Your task to perform on an android device: Open Google Chrome and open the bookmarks view Image 0: 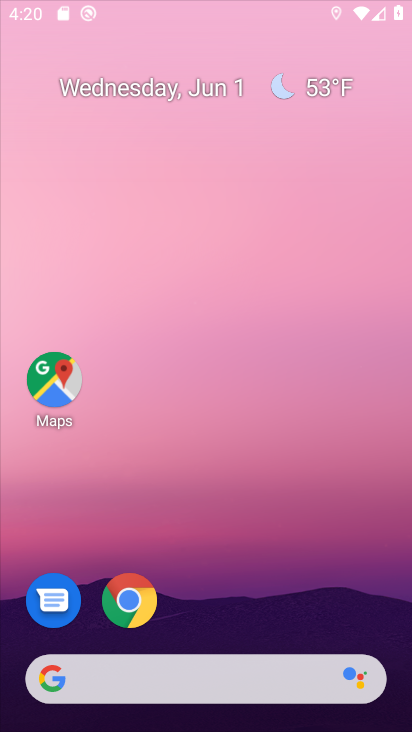
Step 0: drag from (193, 554) to (156, 270)
Your task to perform on an android device: Open Google Chrome and open the bookmarks view Image 1: 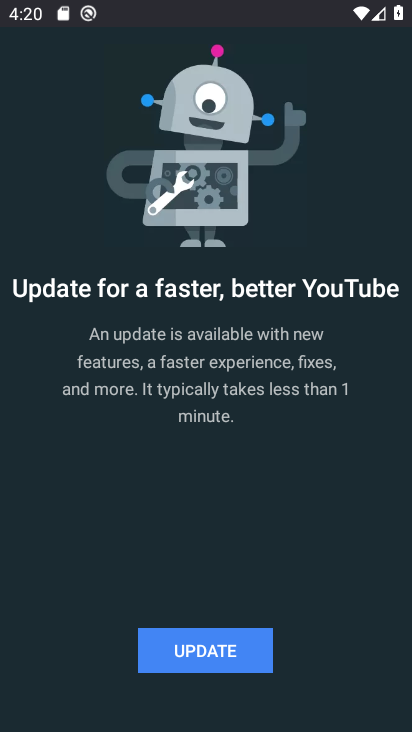
Step 1: press home button
Your task to perform on an android device: Open Google Chrome and open the bookmarks view Image 2: 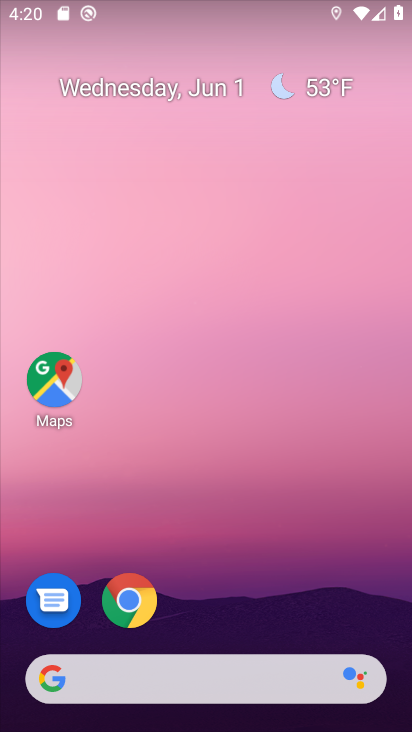
Step 2: drag from (247, 512) to (147, 182)
Your task to perform on an android device: Open Google Chrome and open the bookmarks view Image 3: 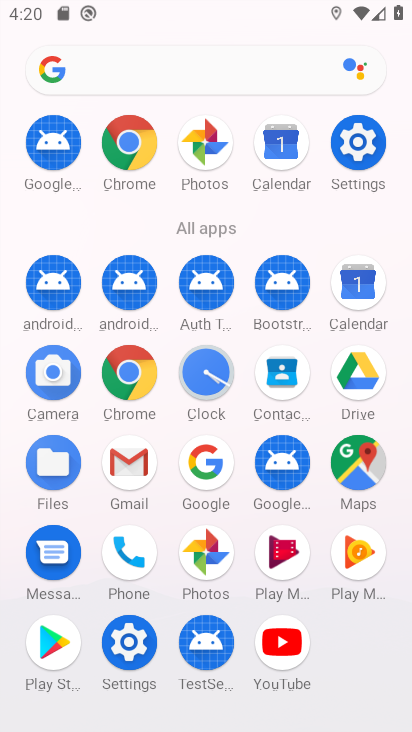
Step 3: click (127, 162)
Your task to perform on an android device: Open Google Chrome and open the bookmarks view Image 4: 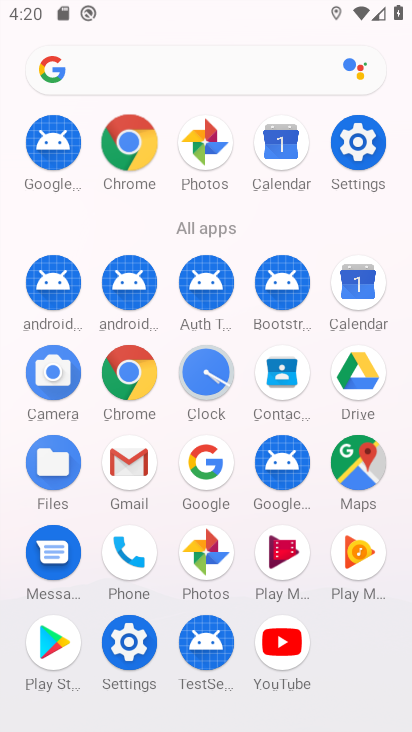
Step 4: click (127, 157)
Your task to perform on an android device: Open Google Chrome and open the bookmarks view Image 5: 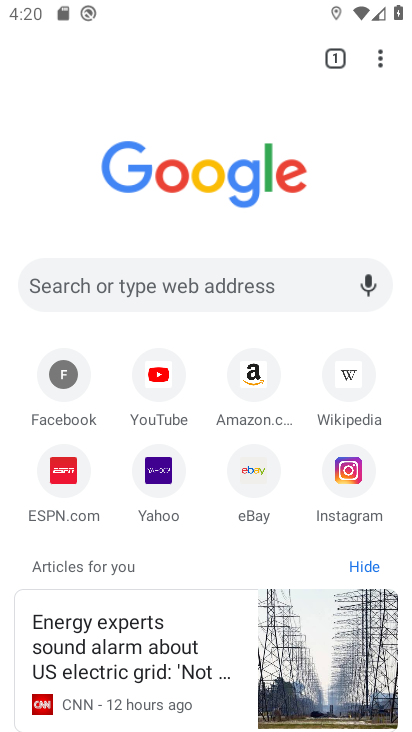
Step 5: click (386, 67)
Your task to perform on an android device: Open Google Chrome and open the bookmarks view Image 6: 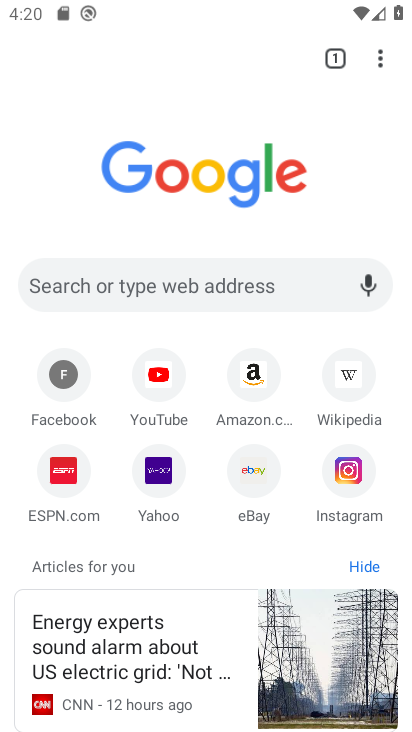
Step 6: click (380, 52)
Your task to perform on an android device: Open Google Chrome and open the bookmarks view Image 7: 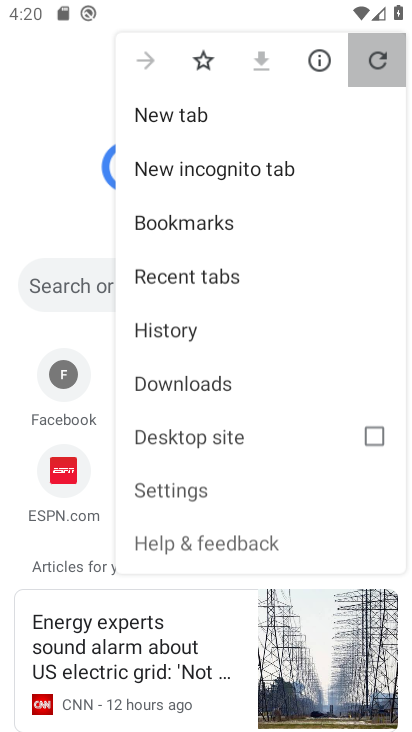
Step 7: click (380, 52)
Your task to perform on an android device: Open Google Chrome and open the bookmarks view Image 8: 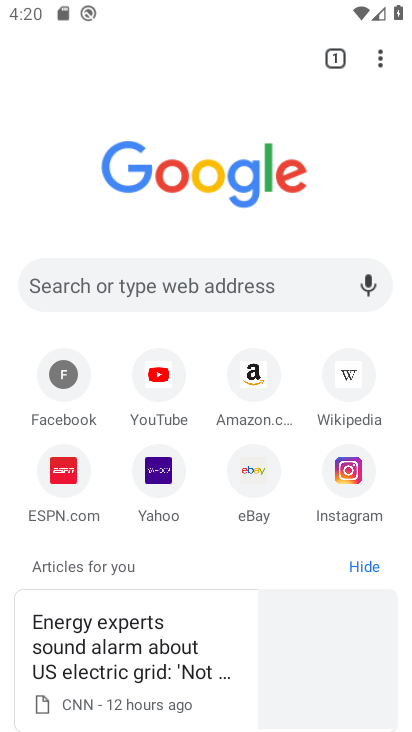
Step 8: click (380, 51)
Your task to perform on an android device: Open Google Chrome and open the bookmarks view Image 9: 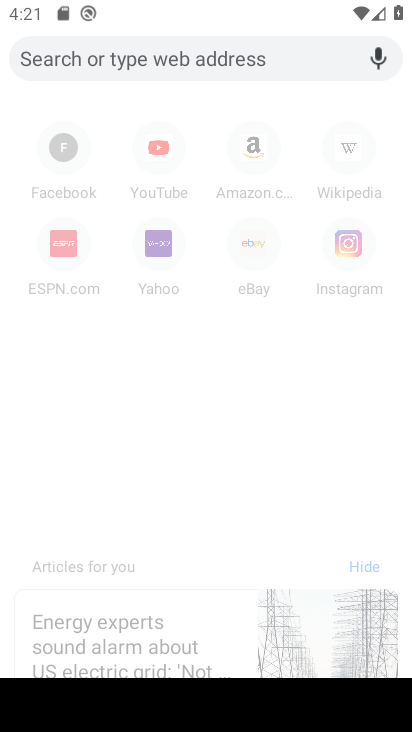
Step 9: press back button
Your task to perform on an android device: Open Google Chrome and open the bookmarks view Image 10: 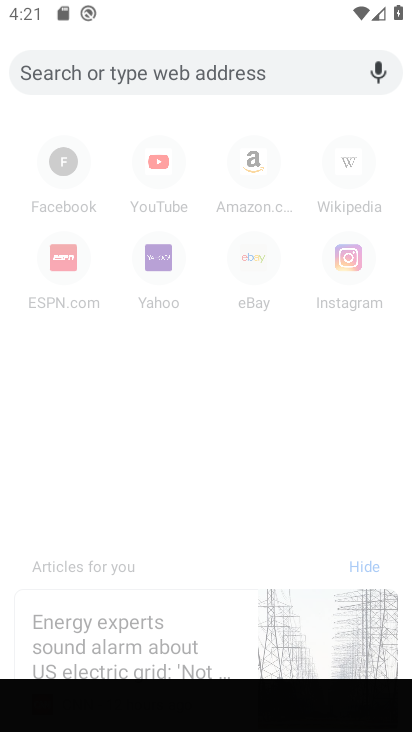
Step 10: press back button
Your task to perform on an android device: Open Google Chrome and open the bookmarks view Image 11: 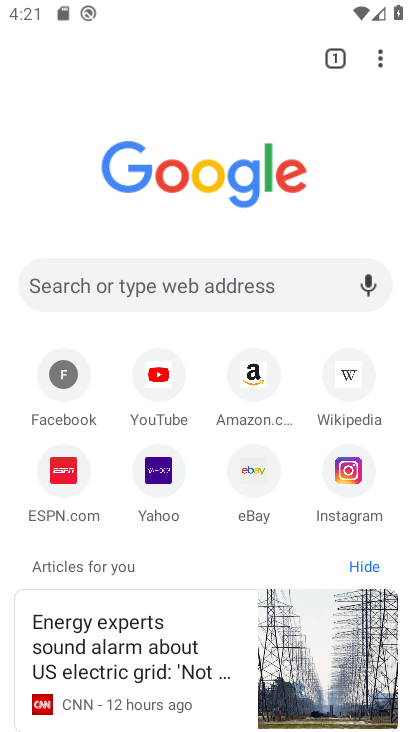
Step 11: press back button
Your task to perform on an android device: Open Google Chrome and open the bookmarks view Image 12: 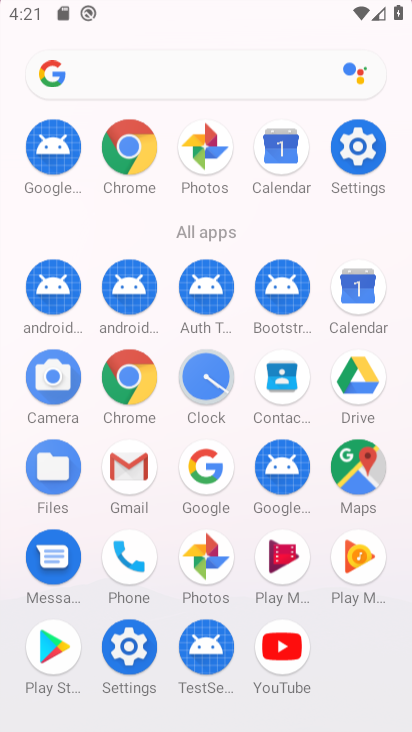
Step 12: press back button
Your task to perform on an android device: Open Google Chrome and open the bookmarks view Image 13: 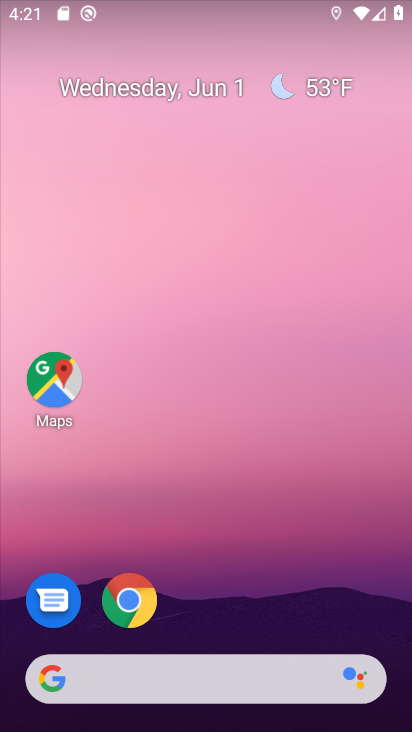
Step 13: drag from (240, 608) to (171, 72)
Your task to perform on an android device: Open Google Chrome and open the bookmarks view Image 14: 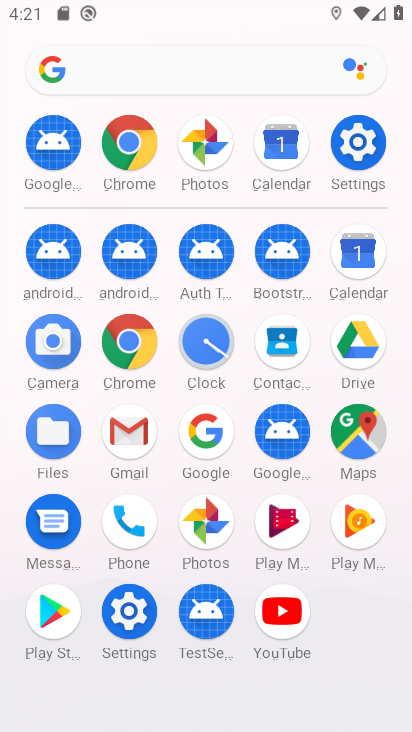
Step 14: drag from (123, 155) to (232, 544)
Your task to perform on an android device: Open Google Chrome and open the bookmarks view Image 15: 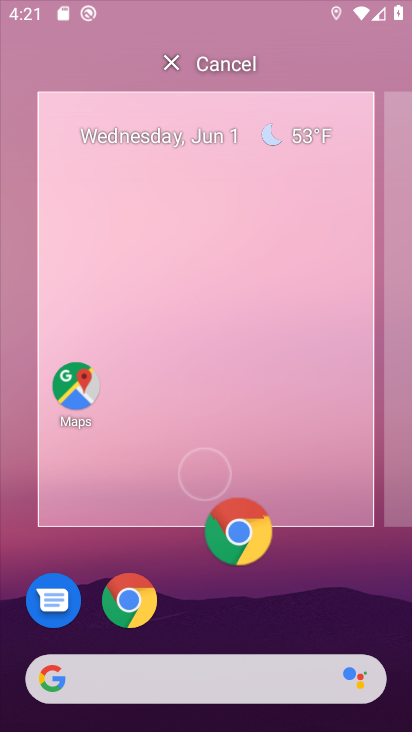
Step 15: drag from (253, 577) to (210, 19)
Your task to perform on an android device: Open Google Chrome and open the bookmarks view Image 16: 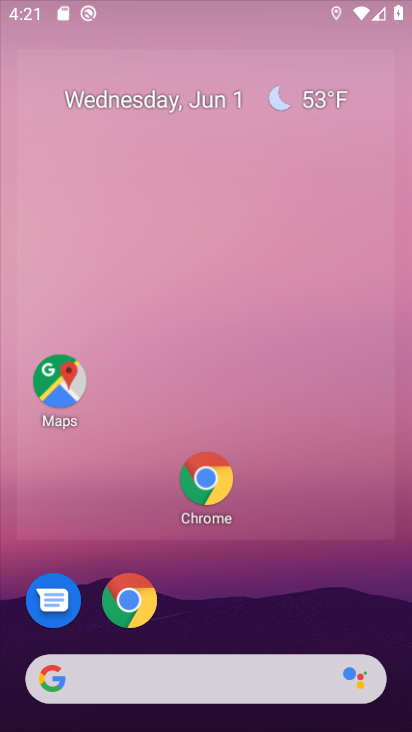
Step 16: drag from (227, 533) to (224, 26)
Your task to perform on an android device: Open Google Chrome and open the bookmarks view Image 17: 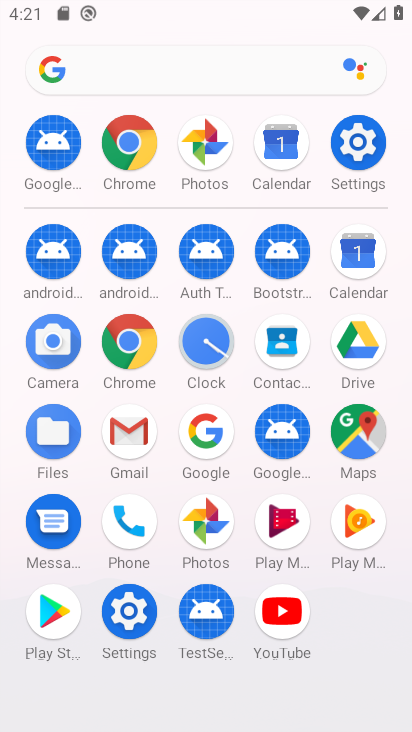
Step 17: click (129, 147)
Your task to perform on an android device: Open Google Chrome and open the bookmarks view Image 18: 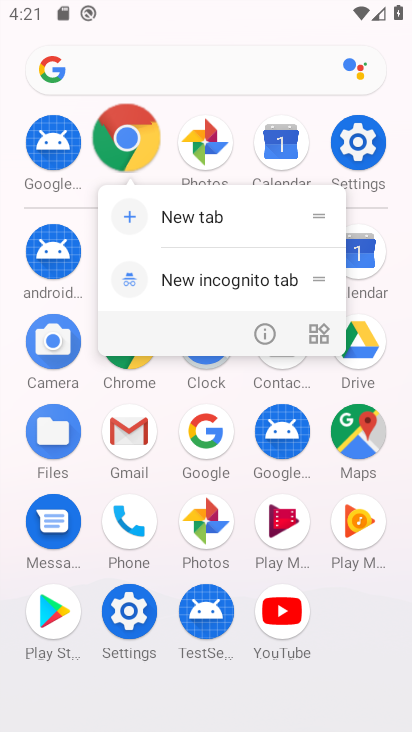
Step 18: click (127, 142)
Your task to perform on an android device: Open Google Chrome and open the bookmarks view Image 19: 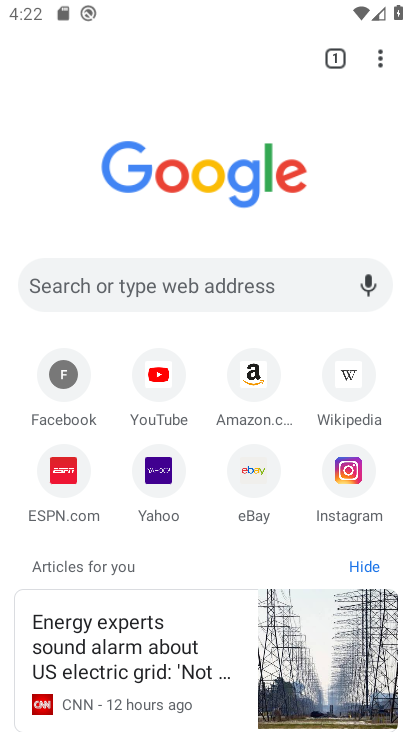
Step 19: drag from (379, 59) to (157, 229)
Your task to perform on an android device: Open Google Chrome and open the bookmarks view Image 20: 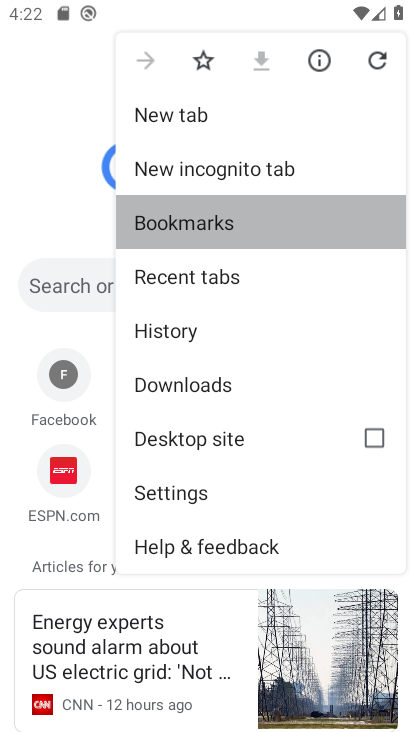
Step 20: click (157, 230)
Your task to perform on an android device: Open Google Chrome and open the bookmarks view Image 21: 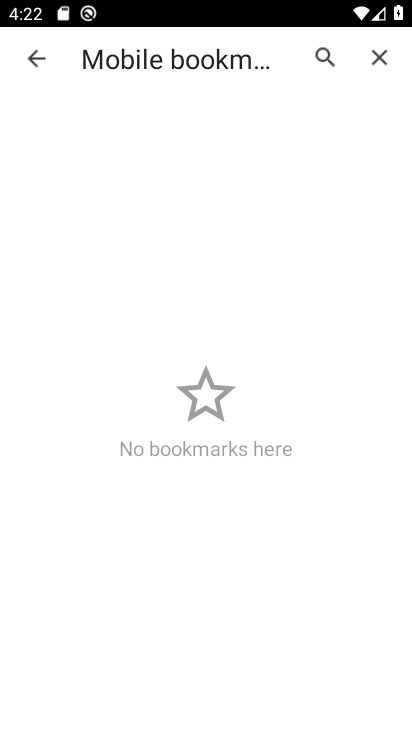
Step 21: task complete